Your task to perform on an android device: Open Google Chrome and click the shortcut for Amazon.com Image 0: 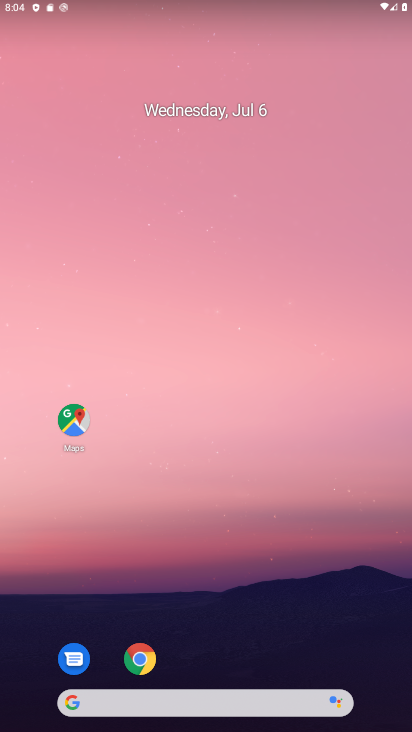
Step 0: click (149, 666)
Your task to perform on an android device: Open Google Chrome and click the shortcut for Amazon.com Image 1: 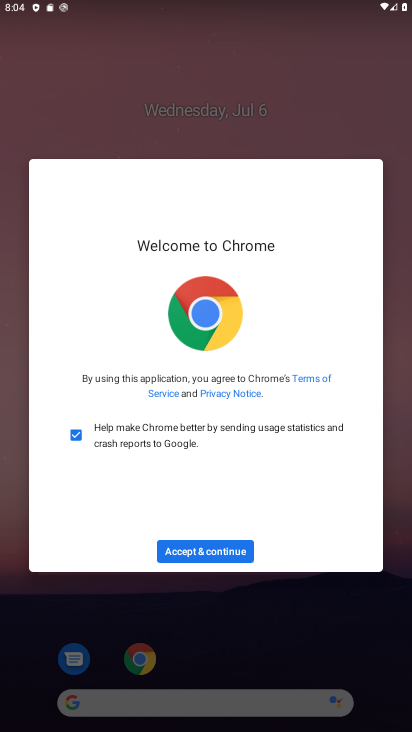
Step 1: click (193, 552)
Your task to perform on an android device: Open Google Chrome and click the shortcut for Amazon.com Image 2: 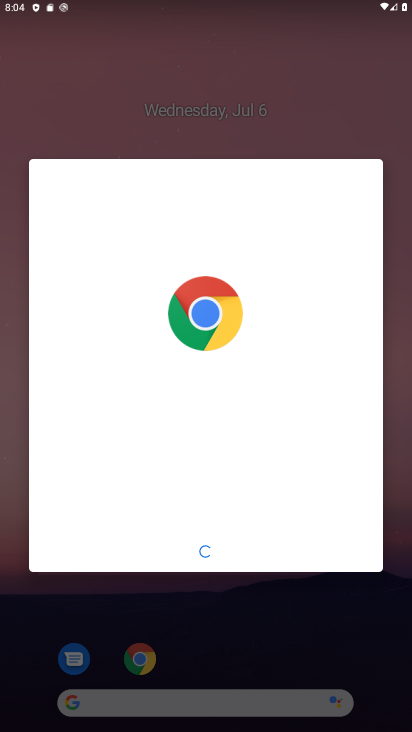
Step 2: click (193, 552)
Your task to perform on an android device: Open Google Chrome and click the shortcut for Amazon.com Image 3: 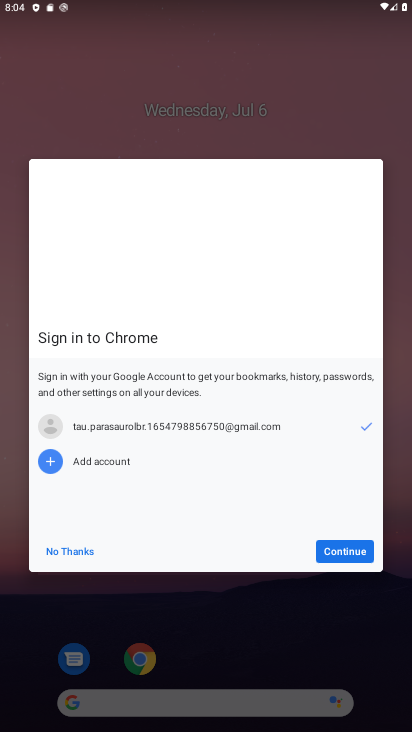
Step 3: click (347, 551)
Your task to perform on an android device: Open Google Chrome and click the shortcut for Amazon.com Image 4: 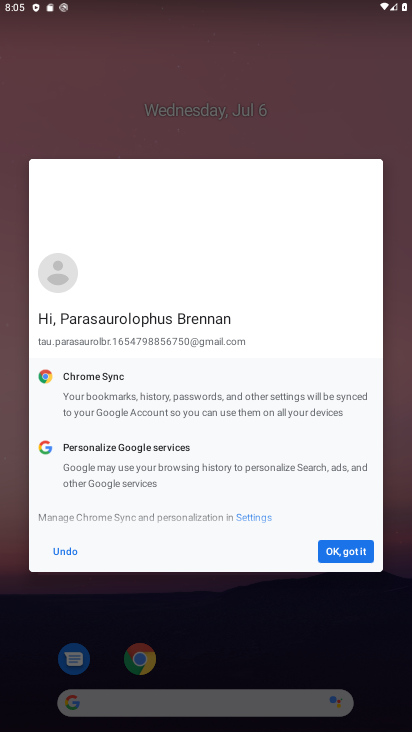
Step 4: click (347, 551)
Your task to perform on an android device: Open Google Chrome and click the shortcut for Amazon.com Image 5: 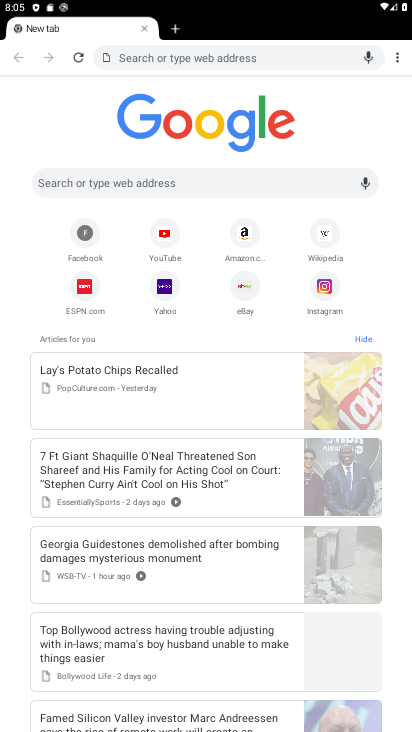
Step 5: click (241, 232)
Your task to perform on an android device: Open Google Chrome and click the shortcut for Amazon.com Image 6: 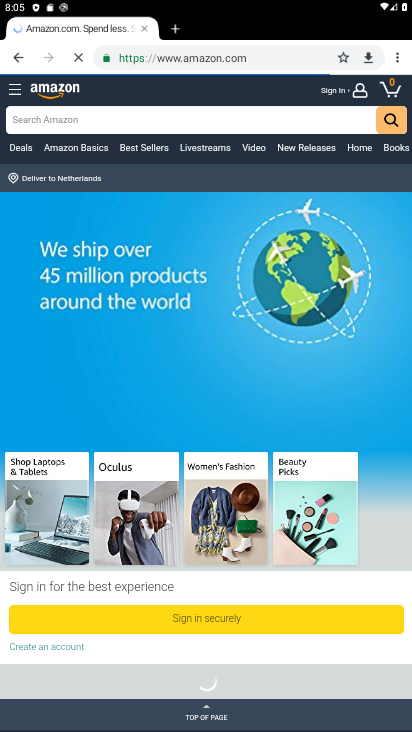
Step 6: task complete